Your task to perform on an android device: Go to sound settings Image 0: 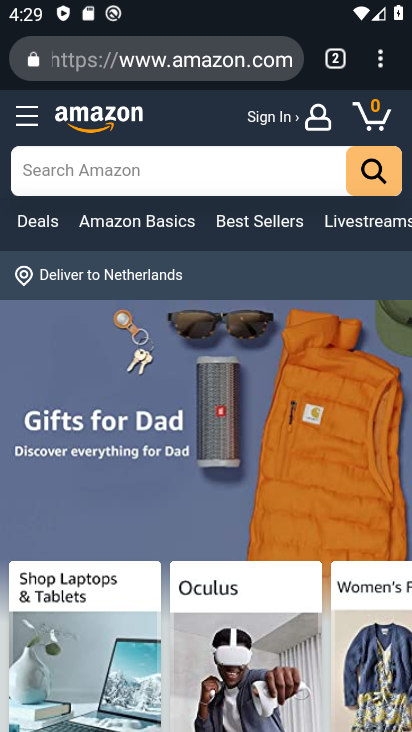
Step 0: press home button
Your task to perform on an android device: Go to sound settings Image 1: 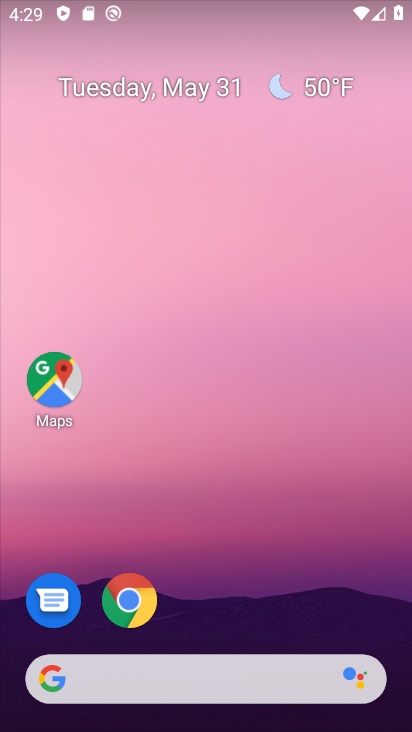
Step 1: drag from (253, 552) to (267, 82)
Your task to perform on an android device: Go to sound settings Image 2: 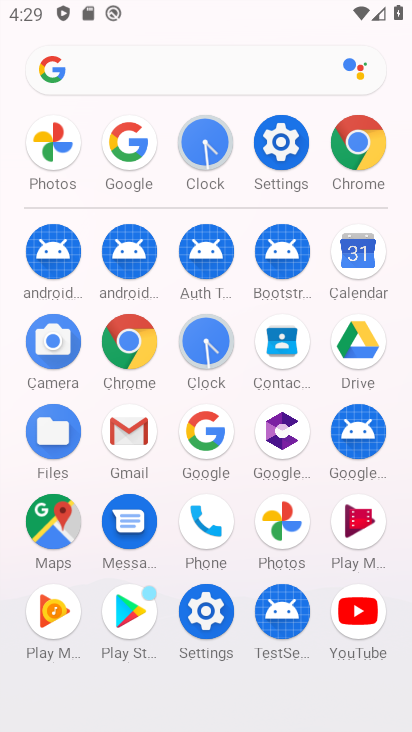
Step 2: click (280, 138)
Your task to perform on an android device: Go to sound settings Image 3: 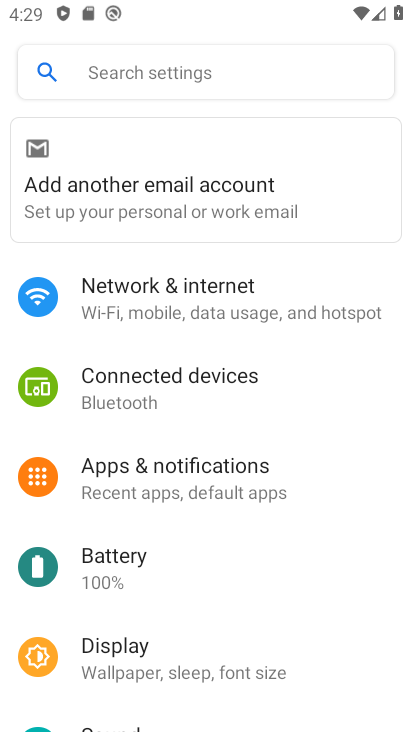
Step 3: drag from (208, 539) to (245, 403)
Your task to perform on an android device: Go to sound settings Image 4: 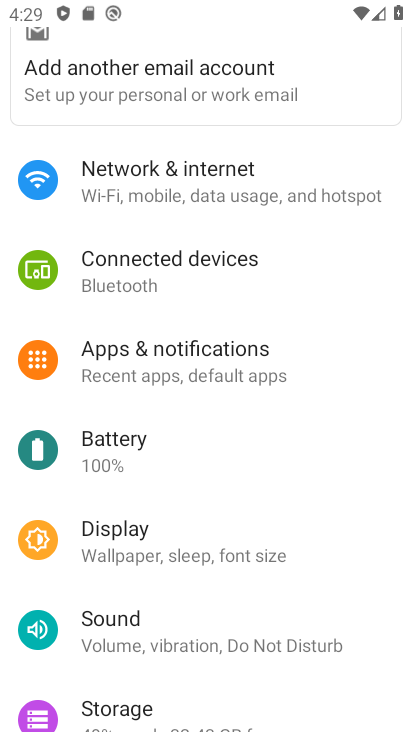
Step 4: drag from (192, 593) to (220, 463)
Your task to perform on an android device: Go to sound settings Image 5: 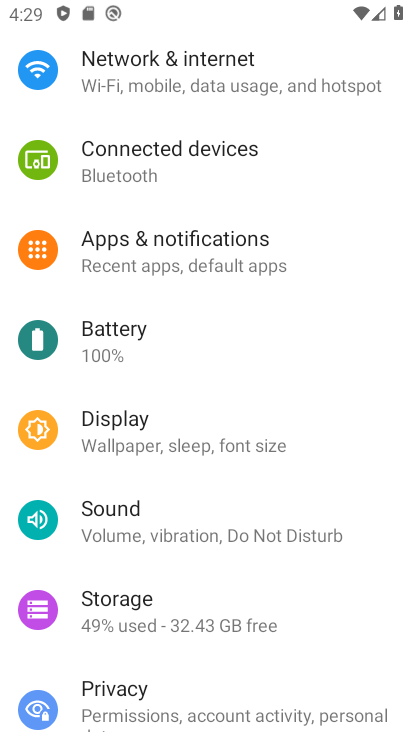
Step 5: click (201, 523)
Your task to perform on an android device: Go to sound settings Image 6: 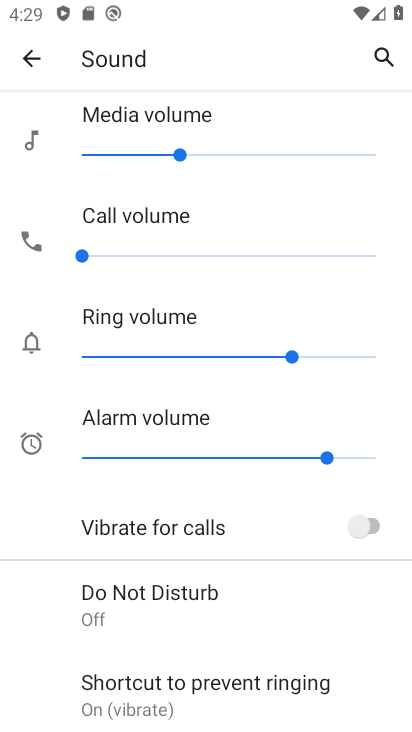
Step 6: task complete